Your task to perform on an android device: toggle notifications settings in the gmail app Image 0: 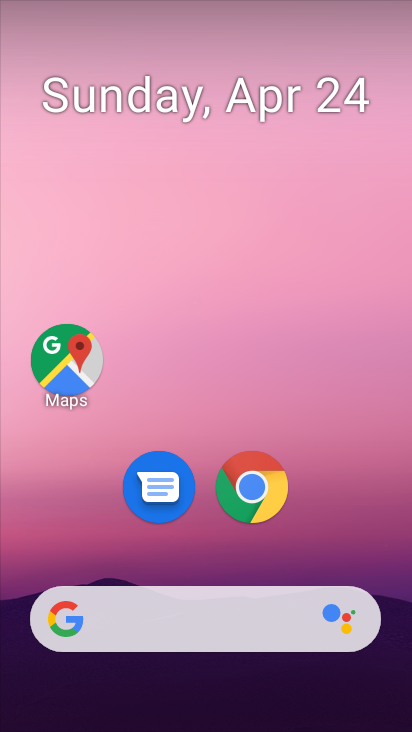
Step 0: drag from (319, 555) to (346, 85)
Your task to perform on an android device: toggle notifications settings in the gmail app Image 1: 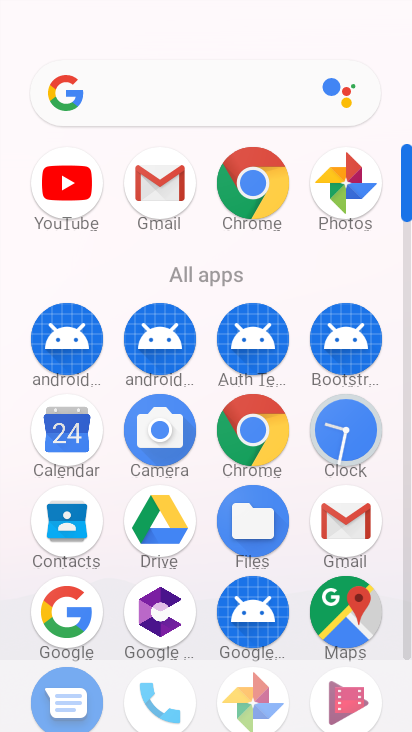
Step 1: drag from (307, 276) to (336, 16)
Your task to perform on an android device: toggle notifications settings in the gmail app Image 2: 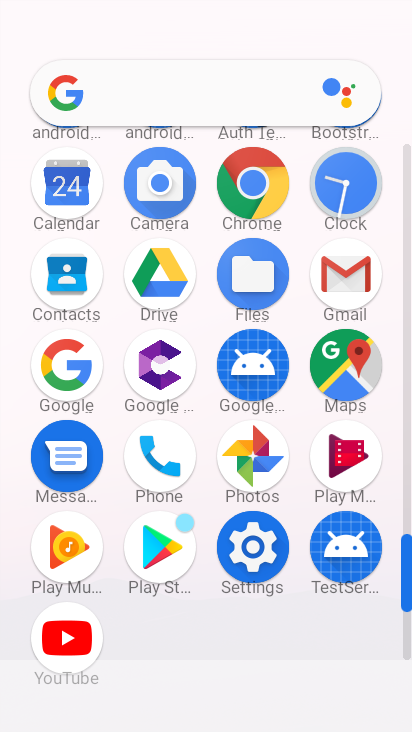
Step 2: click (247, 539)
Your task to perform on an android device: toggle notifications settings in the gmail app Image 3: 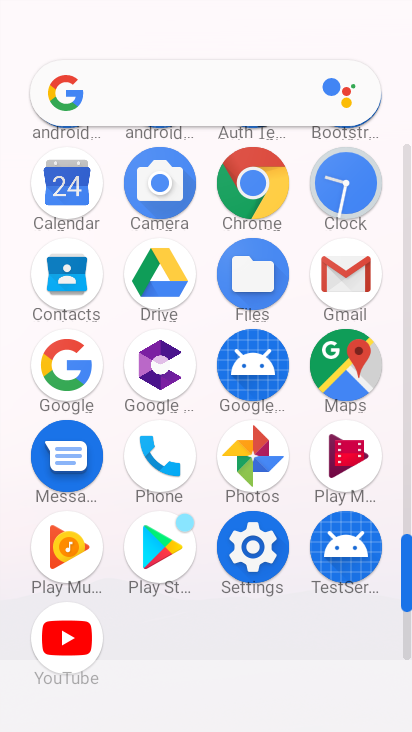
Step 3: press back button
Your task to perform on an android device: toggle notifications settings in the gmail app Image 4: 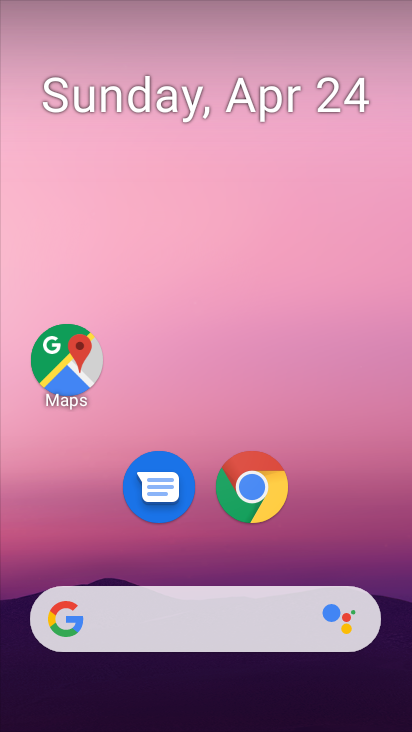
Step 4: drag from (379, 347) to (388, 53)
Your task to perform on an android device: toggle notifications settings in the gmail app Image 5: 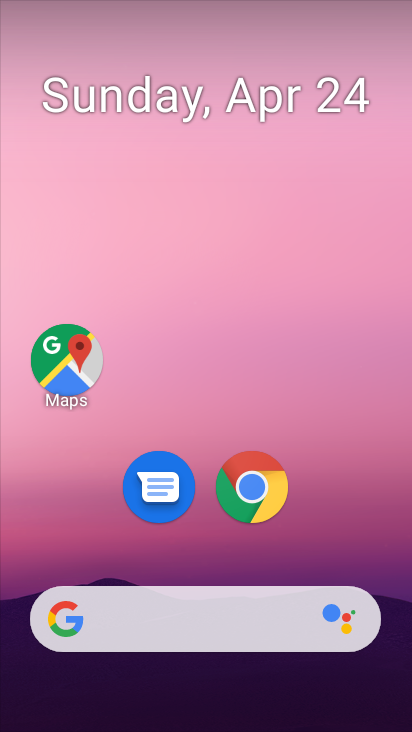
Step 5: drag from (311, 546) to (332, 96)
Your task to perform on an android device: toggle notifications settings in the gmail app Image 6: 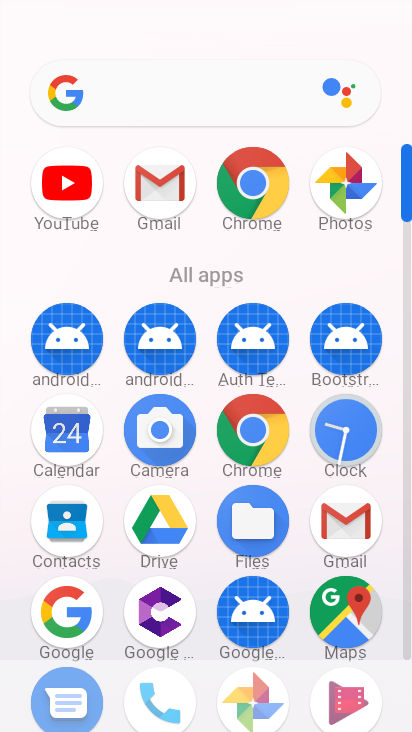
Step 6: click (346, 521)
Your task to perform on an android device: toggle notifications settings in the gmail app Image 7: 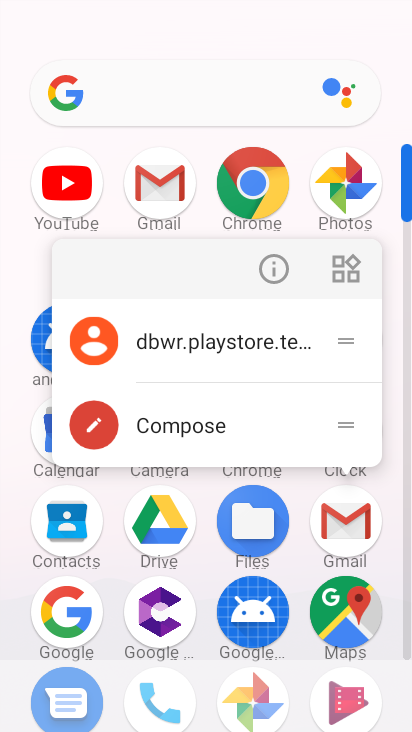
Step 7: click (268, 270)
Your task to perform on an android device: toggle notifications settings in the gmail app Image 8: 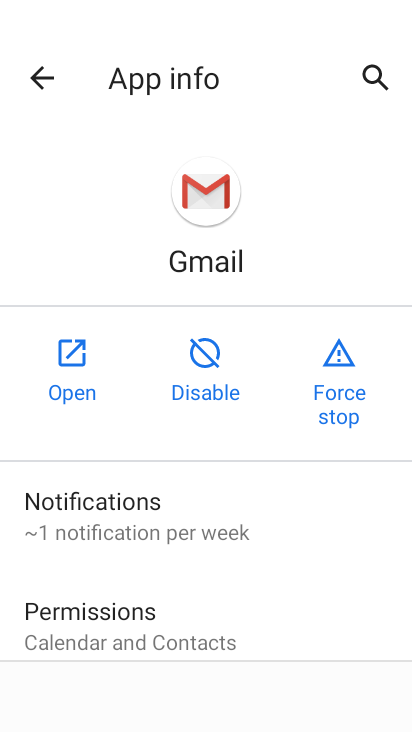
Step 8: click (257, 522)
Your task to perform on an android device: toggle notifications settings in the gmail app Image 9: 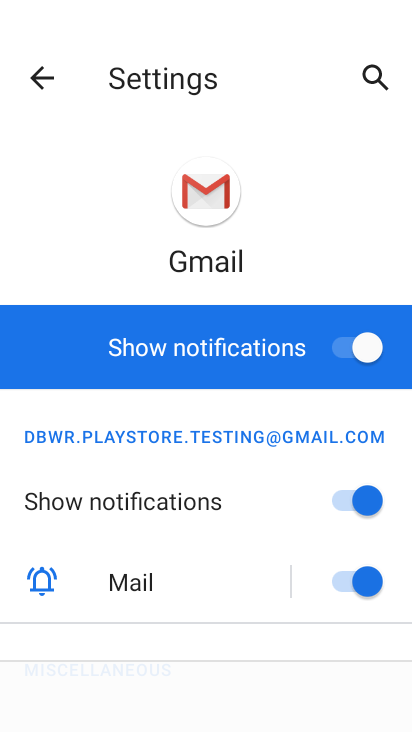
Step 9: click (348, 349)
Your task to perform on an android device: toggle notifications settings in the gmail app Image 10: 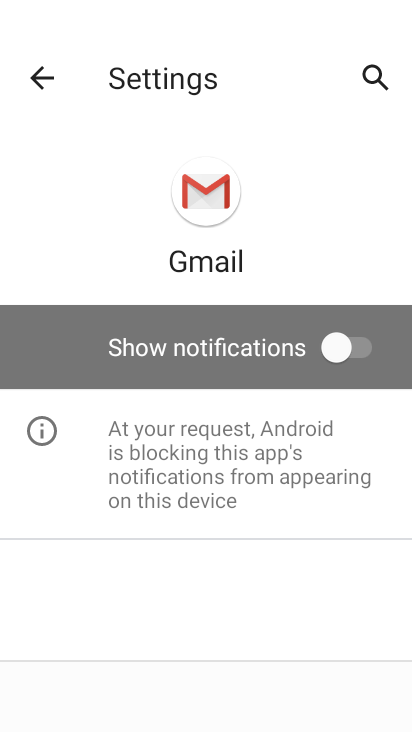
Step 10: task complete